Your task to perform on an android device: What's the weather? Image 0: 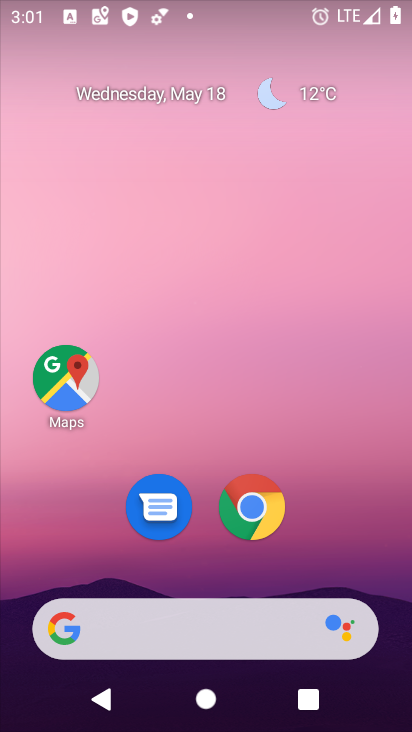
Step 0: click (312, 90)
Your task to perform on an android device: What's the weather? Image 1: 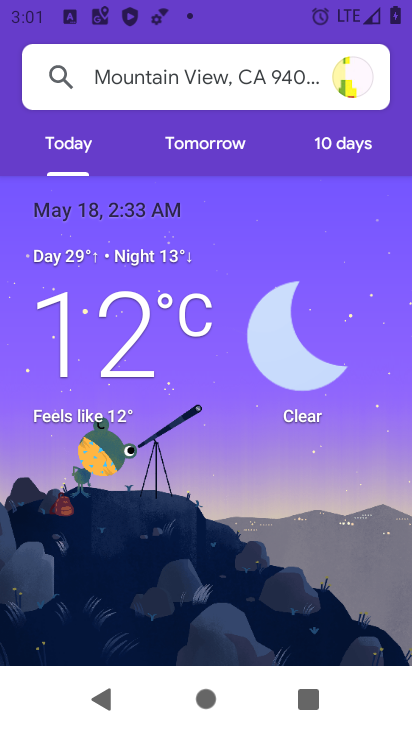
Step 1: task complete